Your task to perform on an android device: turn on showing notifications on the lock screen Image 0: 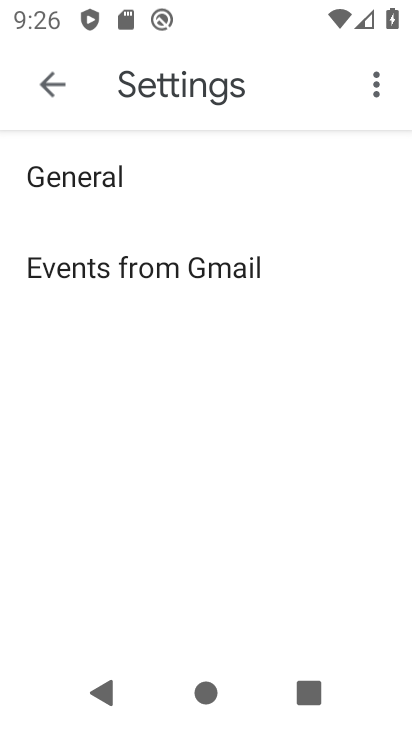
Step 0: drag from (279, 634) to (275, 164)
Your task to perform on an android device: turn on showing notifications on the lock screen Image 1: 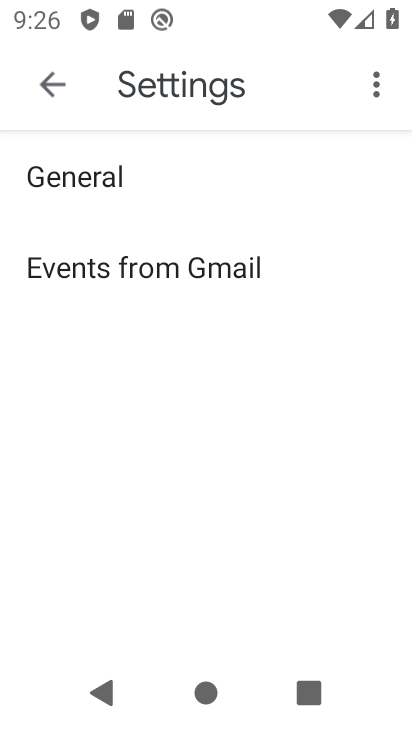
Step 1: press home button
Your task to perform on an android device: turn on showing notifications on the lock screen Image 2: 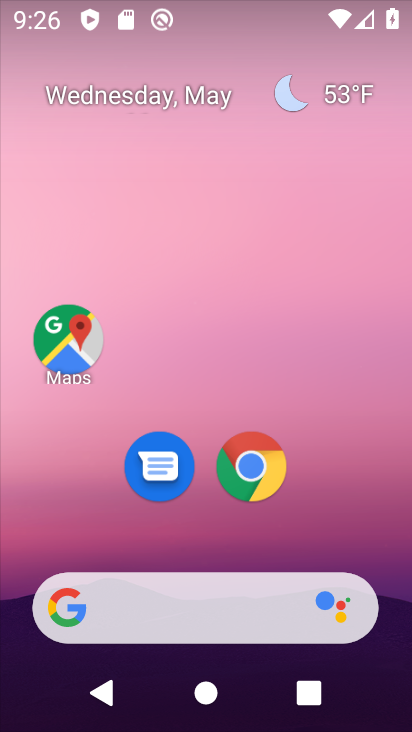
Step 2: drag from (207, 541) to (168, 6)
Your task to perform on an android device: turn on showing notifications on the lock screen Image 3: 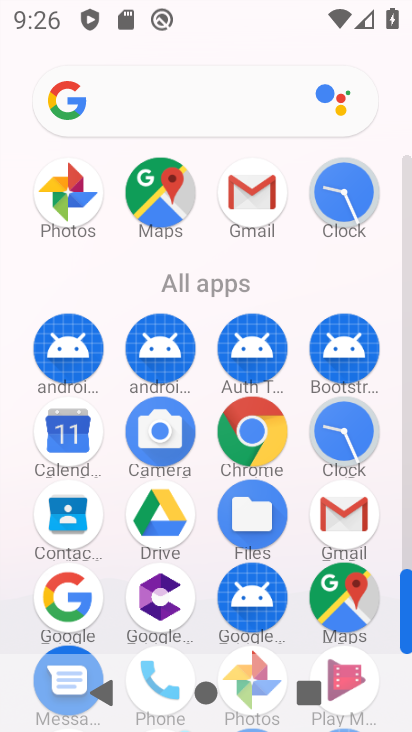
Step 3: drag from (219, 609) to (219, 52)
Your task to perform on an android device: turn on showing notifications on the lock screen Image 4: 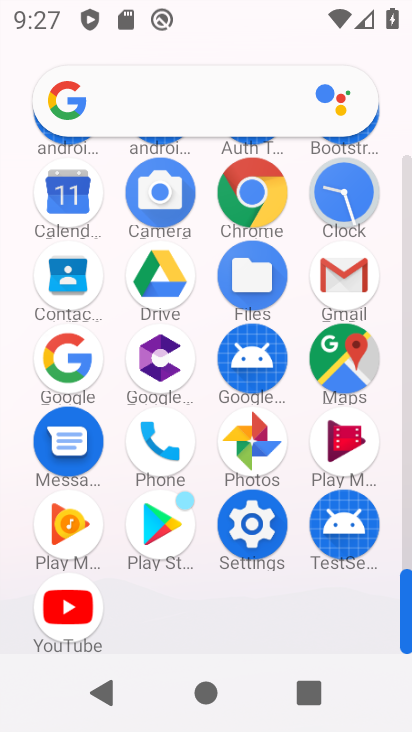
Step 4: click (258, 523)
Your task to perform on an android device: turn on showing notifications on the lock screen Image 5: 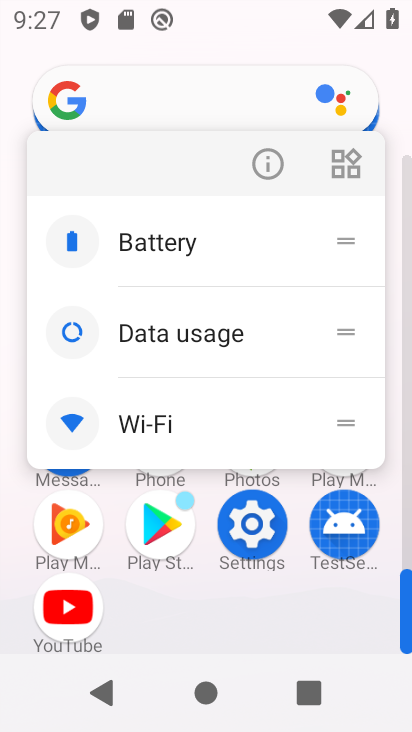
Step 5: click (274, 157)
Your task to perform on an android device: turn on showing notifications on the lock screen Image 6: 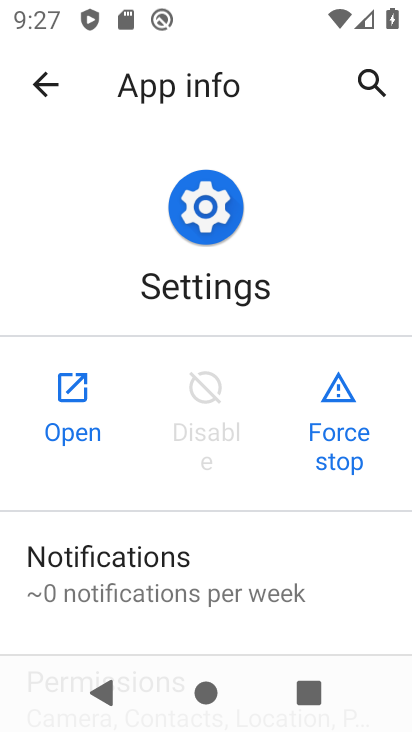
Step 6: click (93, 399)
Your task to perform on an android device: turn on showing notifications on the lock screen Image 7: 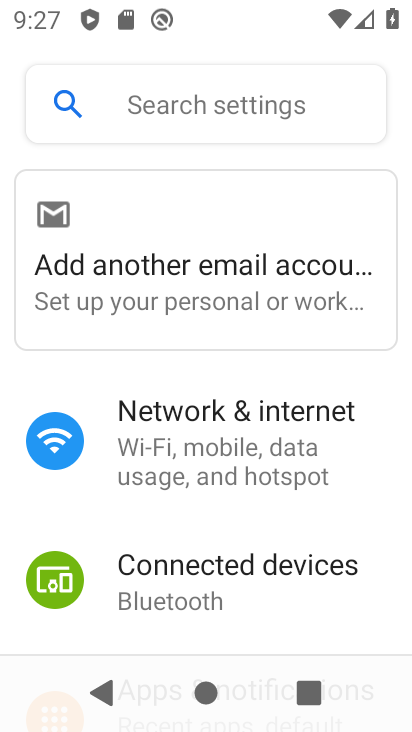
Step 7: drag from (202, 553) to (227, 290)
Your task to perform on an android device: turn on showing notifications on the lock screen Image 8: 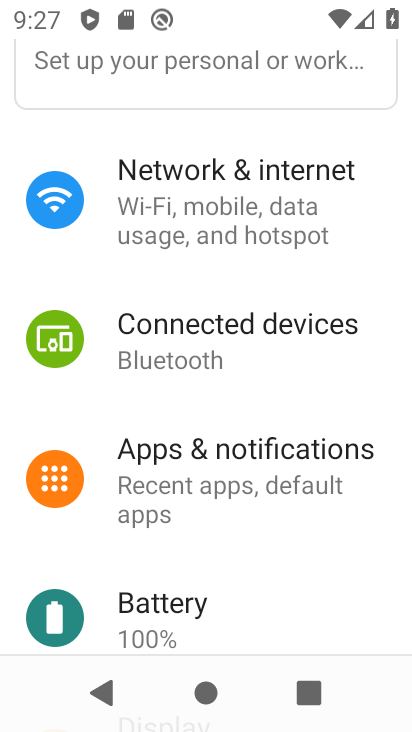
Step 8: drag from (250, 602) to (252, 115)
Your task to perform on an android device: turn on showing notifications on the lock screen Image 9: 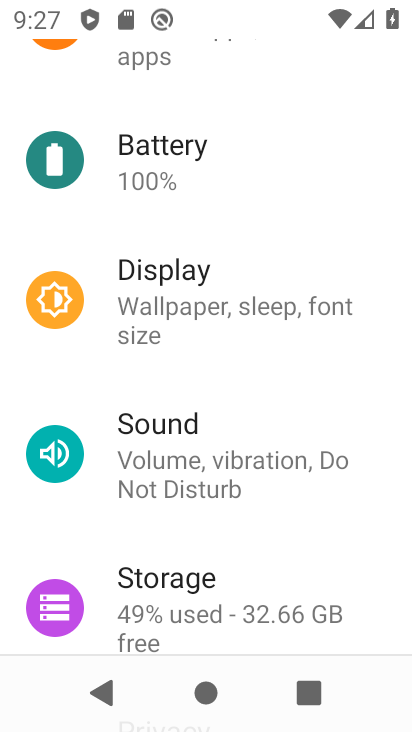
Step 9: drag from (205, 614) to (230, 279)
Your task to perform on an android device: turn on showing notifications on the lock screen Image 10: 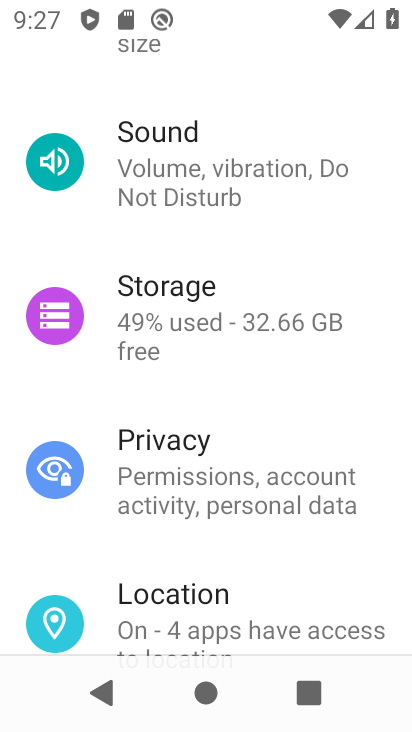
Step 10: drag from (197, 190) to (224, 600)
Your task to perform on an android device: turn on showing notifications on the lock screen Image 11: 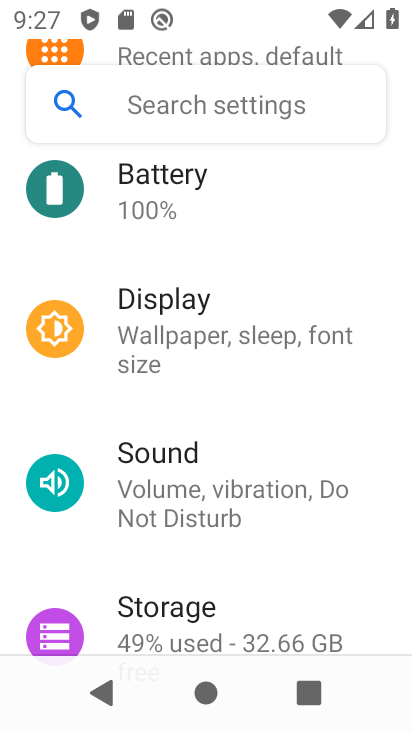
Step 11: drag from (219, 564) to (244, 691)
Your task to perform on an android device: turn on showing notifications on the lock screen Image 12: 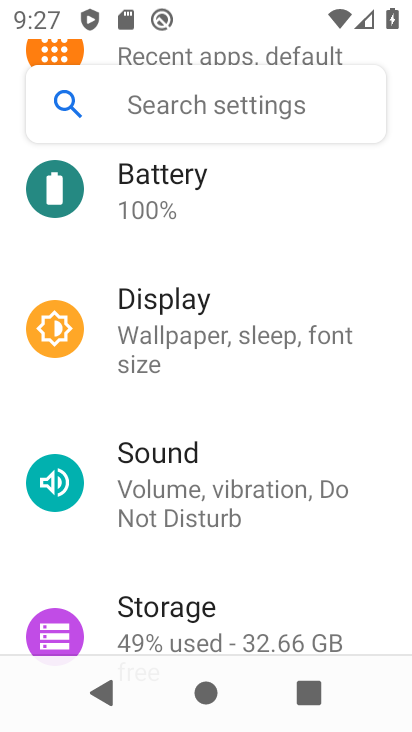
Step 12: drag from (219, 348) to (244, 597)
Your task to perform on an android device: turn on showing notifications on the lock screen Image 13: 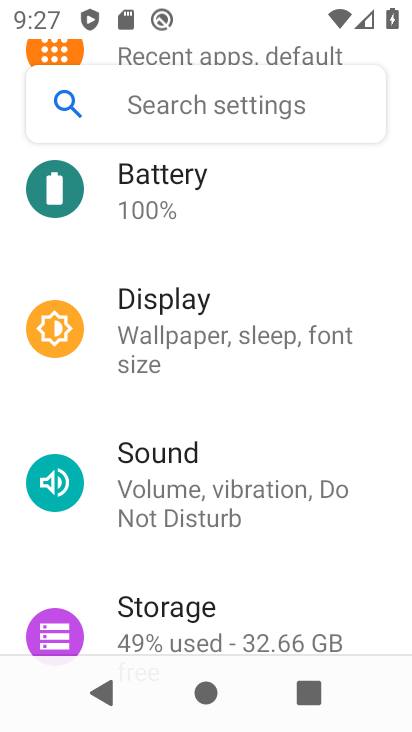
Step 13: drag from (196, 223) to (291, 654)
Your task to perform on an android device: turn on showing notifications on the lock screen Image 14: 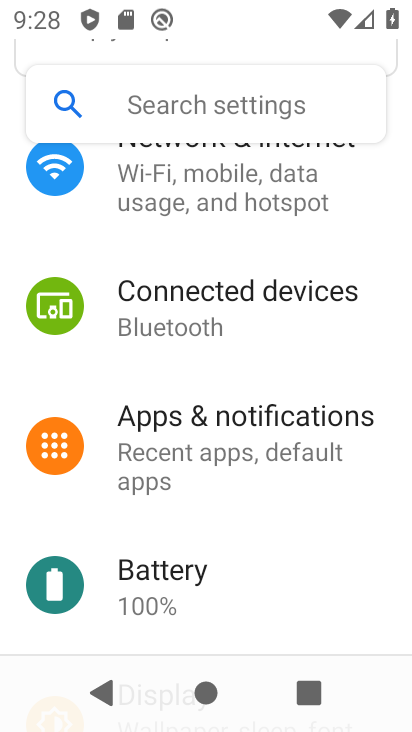
Step 14: click (209, 419)
Your task to perform on an android device: turn on showing notifications on the lock screen Image 15: 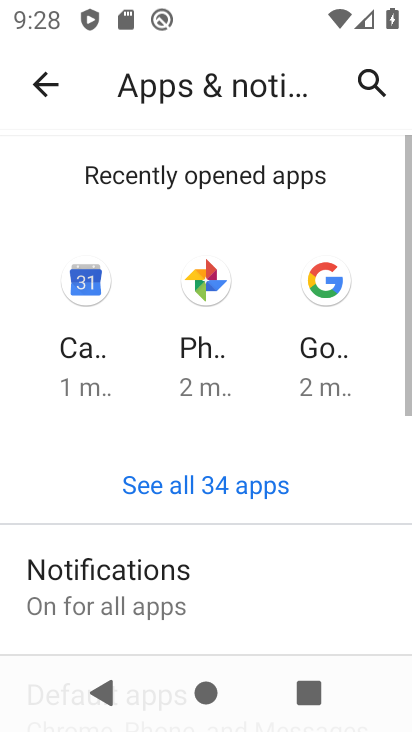
Step 15: click (177, 594)
Your task to perform on an android device: turn on showing notifications on the lock screen Image 16: 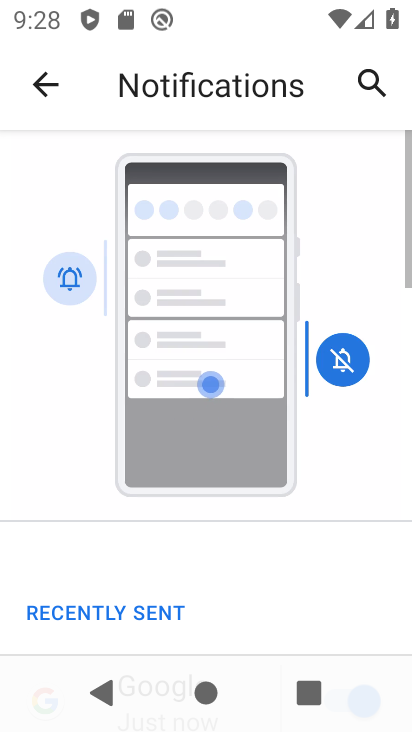
Step 16: drag from (225, 576) to (311, 17)
Your task to perform on an android device: turn on showing notifications on the lock screen Image 17: 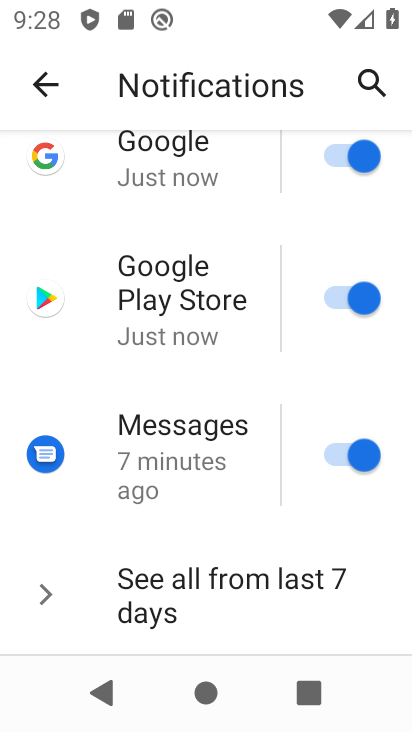
Step 17: drag from (247, 525) to (348, 129)
Your task to perform on an android device: turn on showing notifications on the lock screen Image 18: 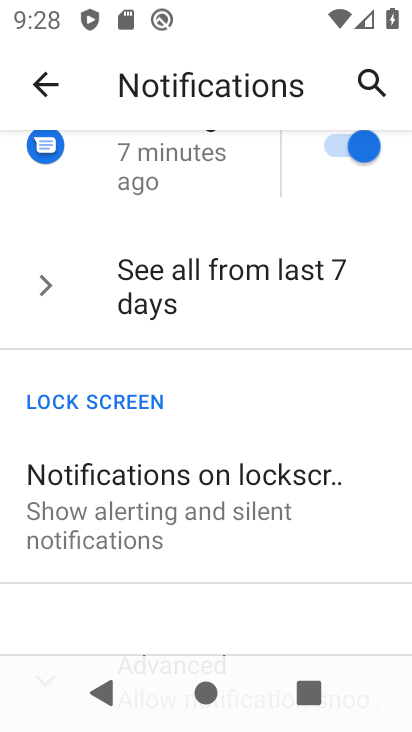
Step 18: click (133, 503)
Your task to perform on an android device: turn on showing notifications on the lock screen Image 19: 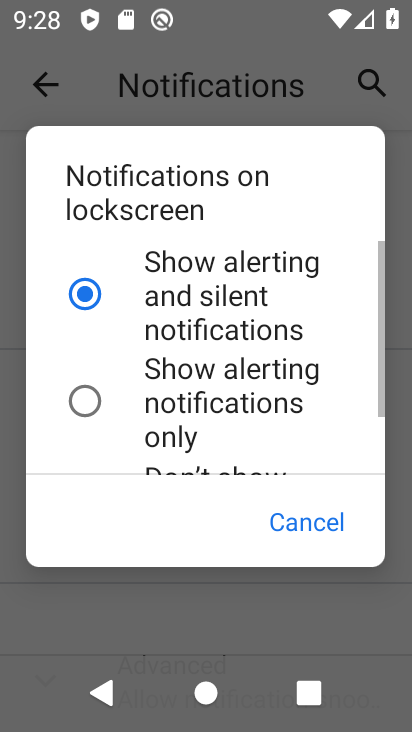
Step 19: click (177, 373)
Your task to perform on an android device: turn on showing notifications on the lock screen Image 20: 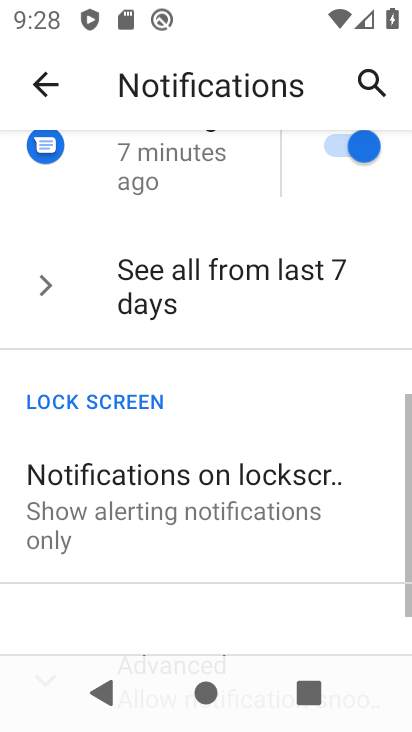
Step 20: task complete